Your task to perform on an android device: Search for Mexican restaurants on Maps Image 0: 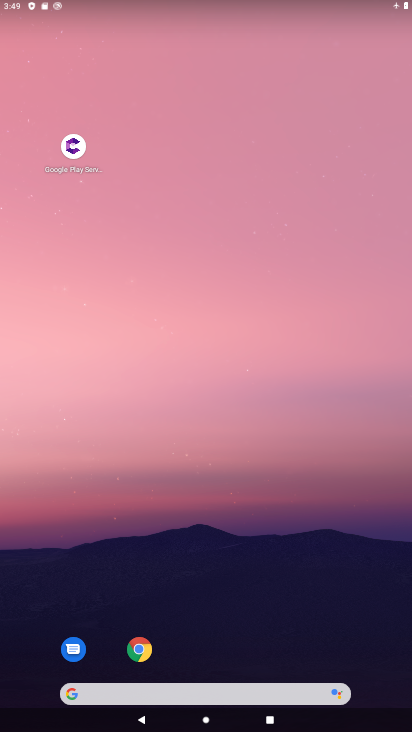
Step 0: drag from (231, 626) to (329, 22)
Your task to perform on an android device: Search for Mexican restaurants on Maps Image 1: 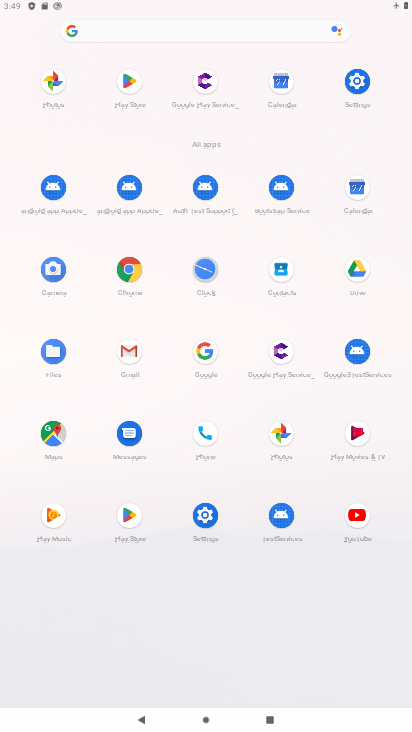
Step 1: click (45, 436)
Your task to perform on an android device: Search for Mexican restaurants on Maps Image 2: 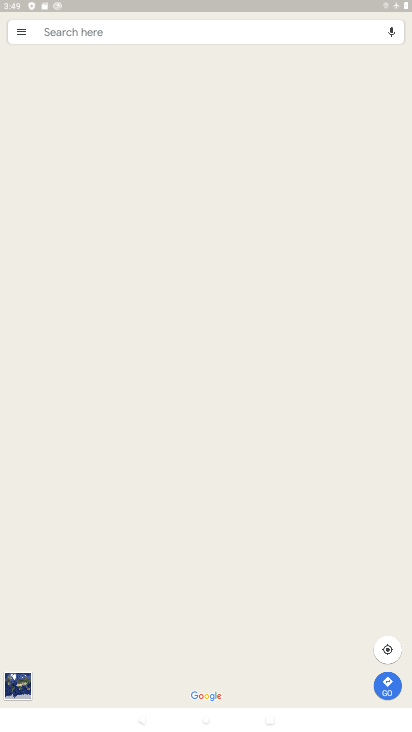
Step 2: click (129, 25)
Your task to perform on an android device: Search for Mexican restaurants on Maps Image 3: 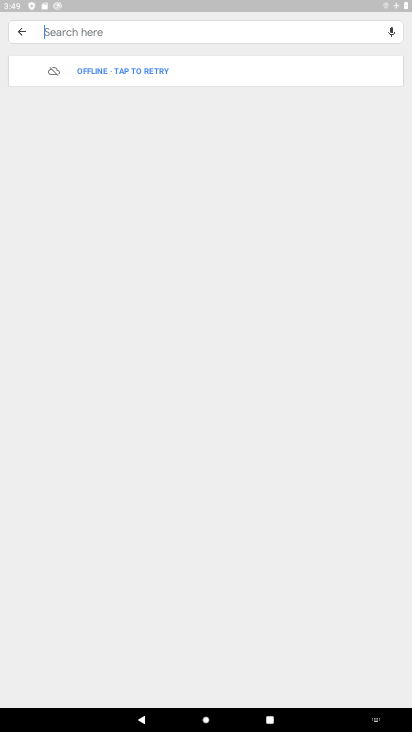
Step 3: type "Mexican restaurants"
Your task to perform on an android device: Search for Mexican restaurants on Maps Image 4: 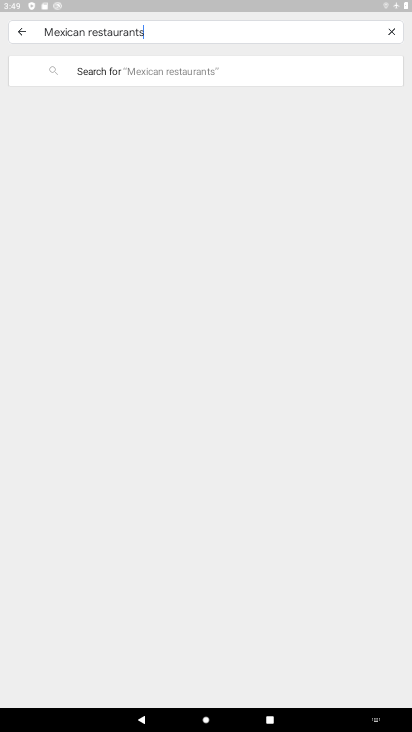
Step 4: click (210, 63)
Your task to perform on an android device: Search for Mexican restaurants on Maps Image 5: 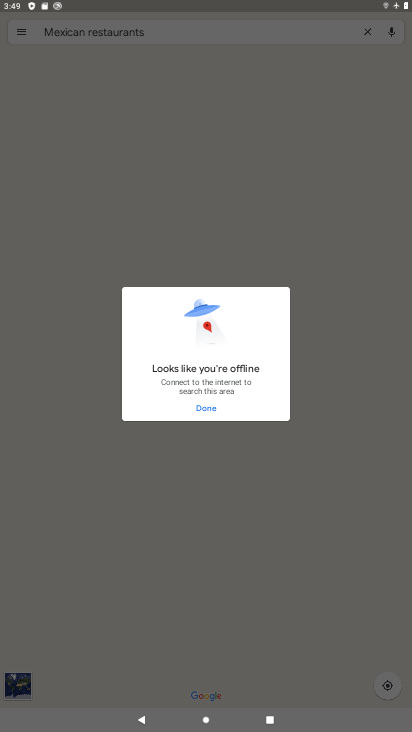
Step 5: task complete